Your task to perform on an android device: What's on the menu at Five Guys? Image 0: 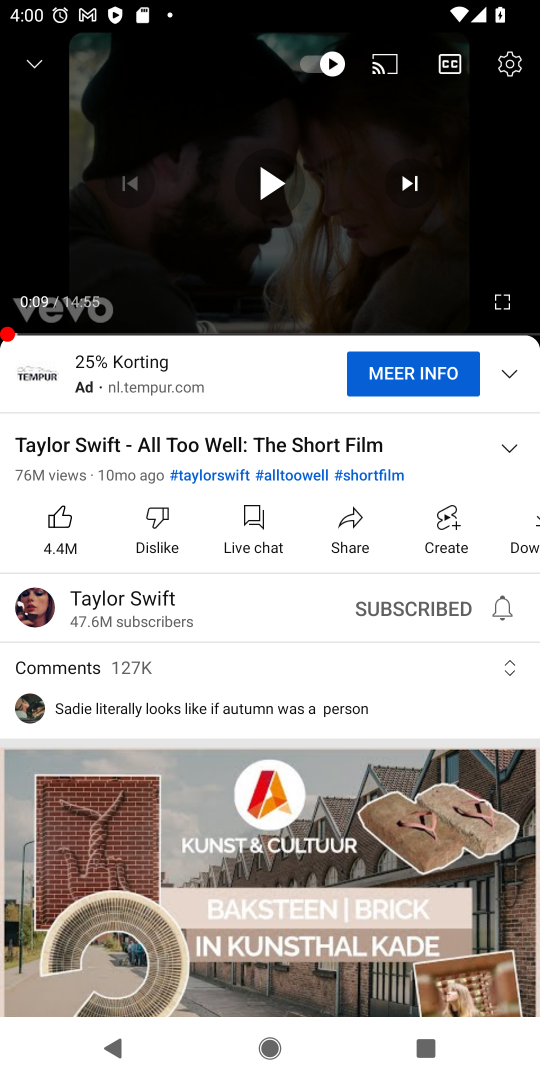
Step 0: press home button
Your task to perform on an android device: What's on the menu at Five Guys? Image 1: 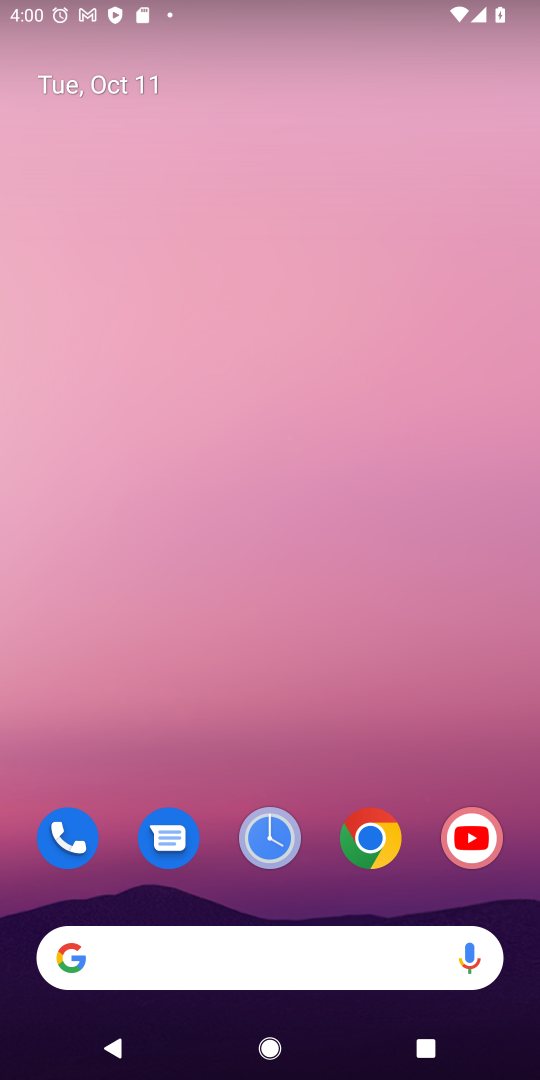
Step 1: click (177, 957)
Your task to perform on an android device: What's on the menu at Five Guys? Image 2: 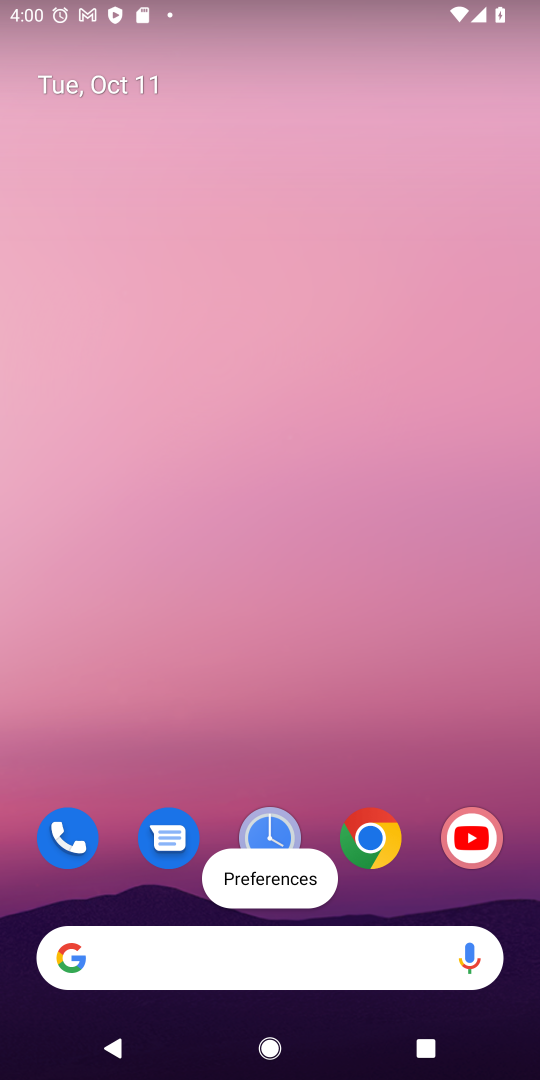
Step 2: click (194, 954)
Your task to perform on an android device: What's on the menu at Five Guys? Image 3: 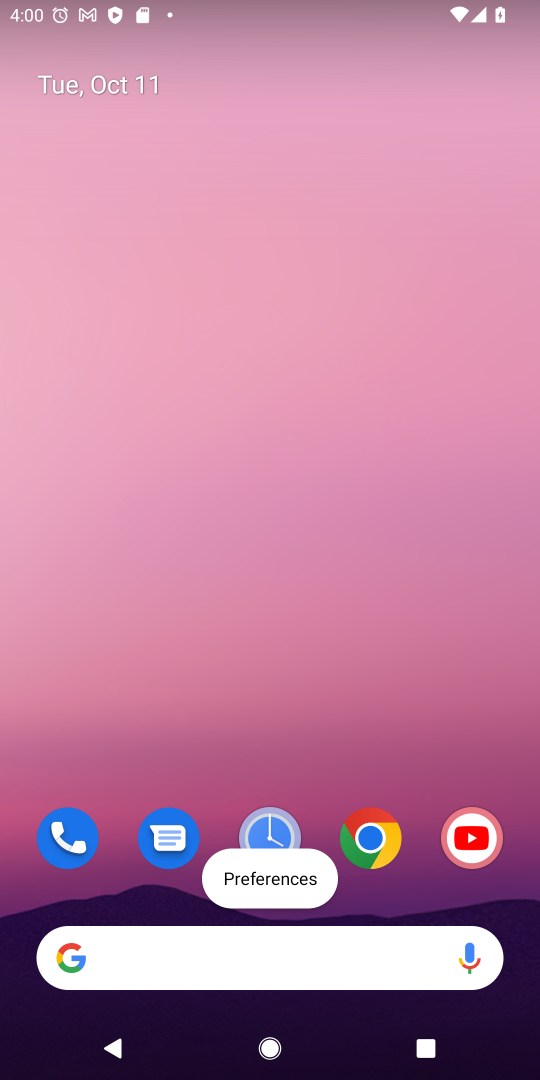
Step 3: click (168, 961)
Your task to perform on an android device: What's on the menu at Five Guys? Image 4: 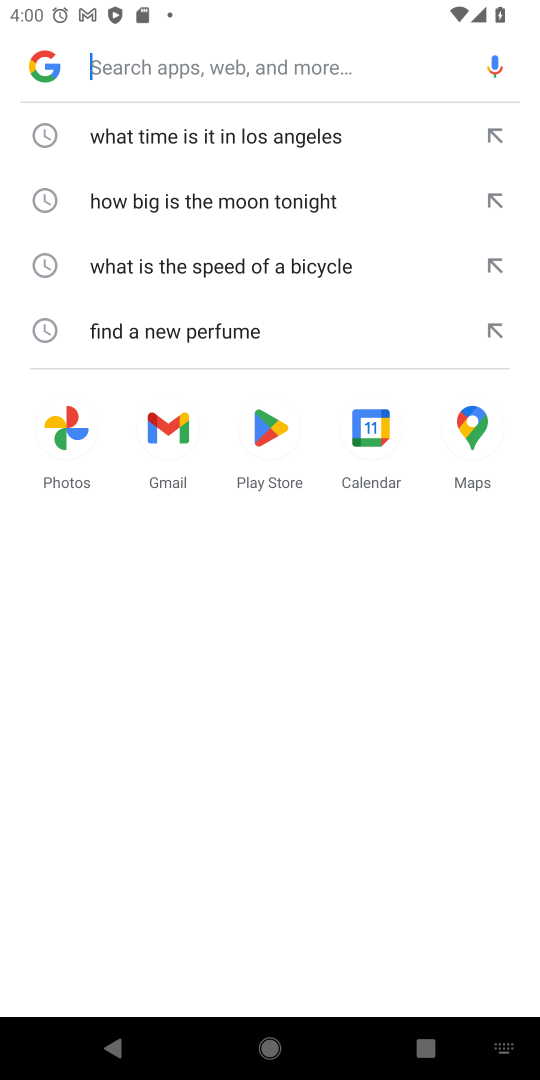
Step 4: click (158, 69)
Your task to perform on an android device: What's on the menu at Five Guys? Image 5: 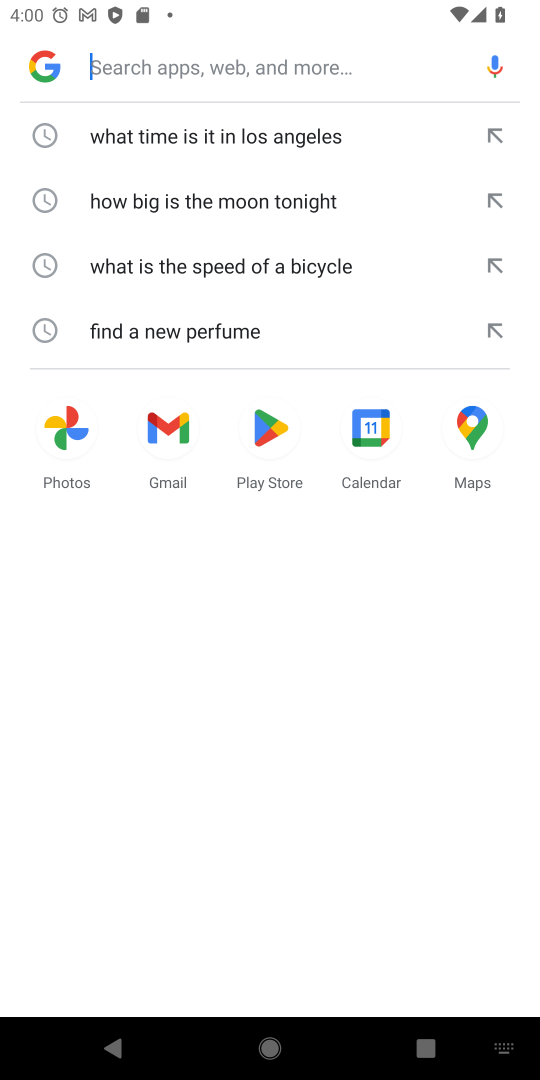
Step 5: type "What's on the menu at Five Guys?"
Your task to perform on an android device: What's on the menu at Five Guys? Image 6: 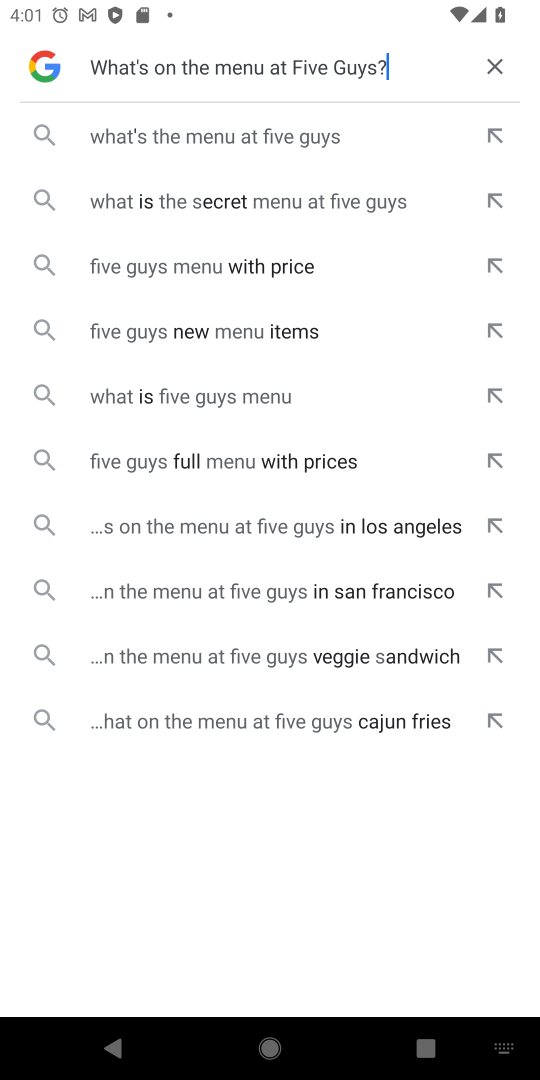
Step 6: click (255, 143)
Your task to perform on an android device: What's on the menu at Five Guys? Image 7: 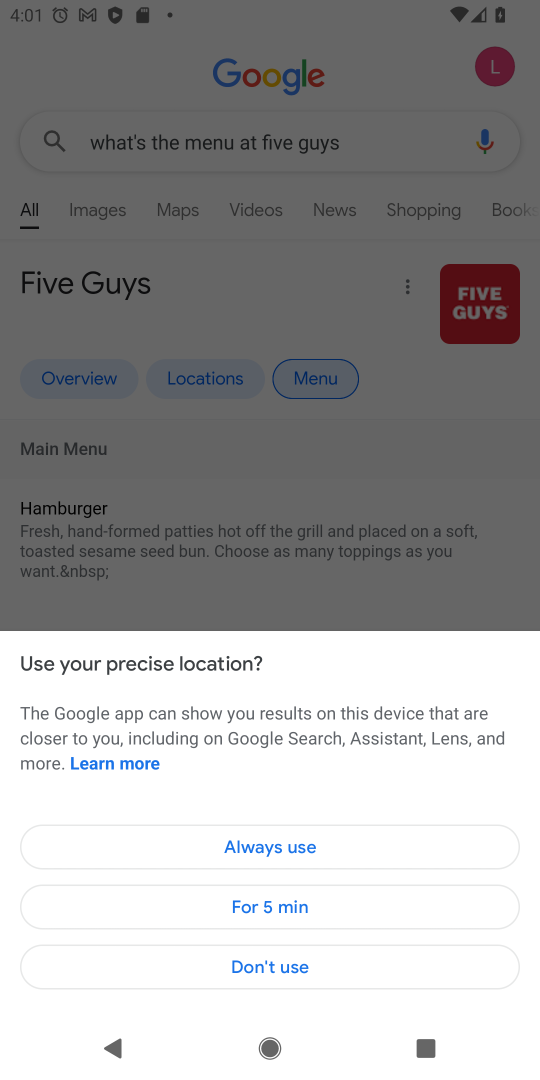
Step 7: click (257, 581)
Your task to perform on an android device: What's on the menu at Five Guys? Image 8: 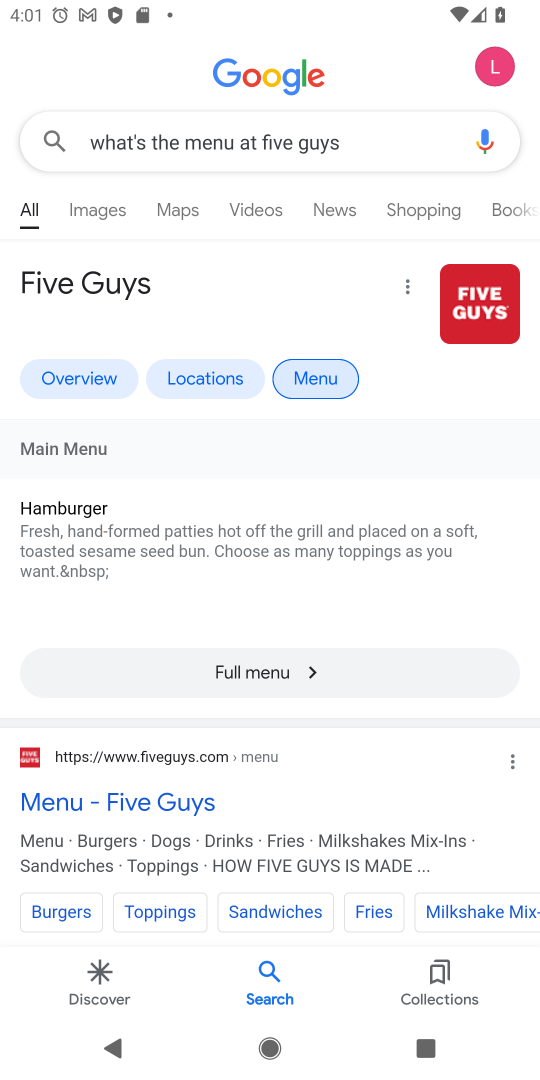
Step 8: task complete